Your task to perform on an android device: What's the weather? Image 0: 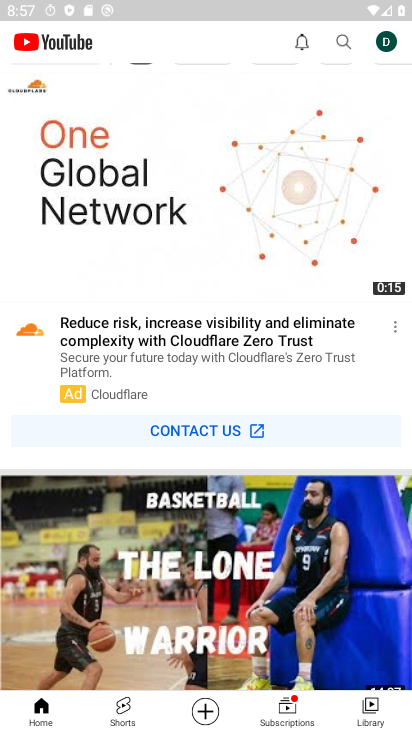
Step 0: press back button
Your task to perform on an android device: What's the weather? Image 1: 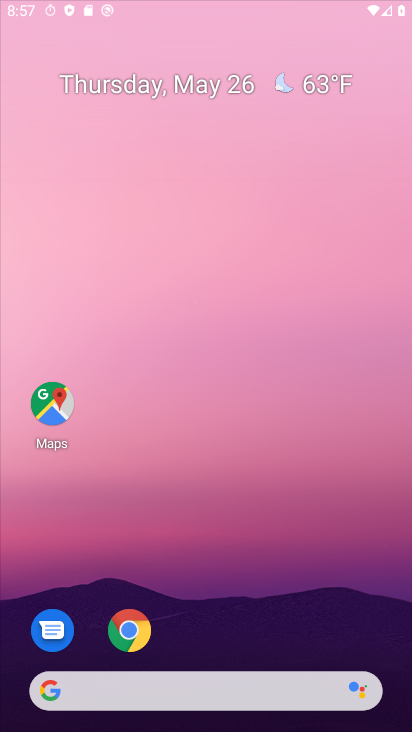
Step 1: press home button
Your task to perform on an android device: What's the weather? Image 2: 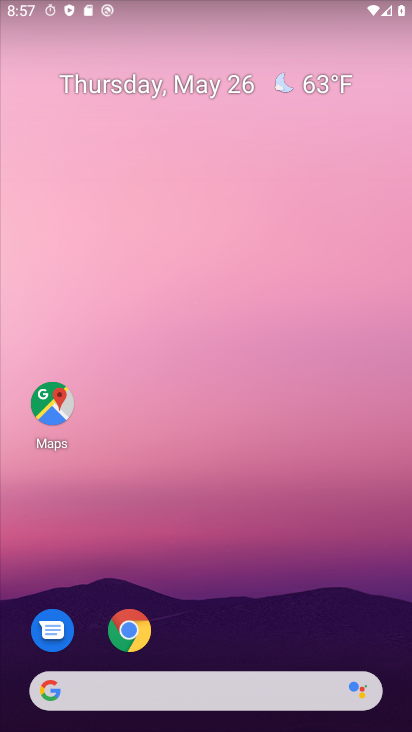
Step 2: drag from (277, 711) to (230, 410)
Your task to perform on an android device: What's the weather? Image 3: 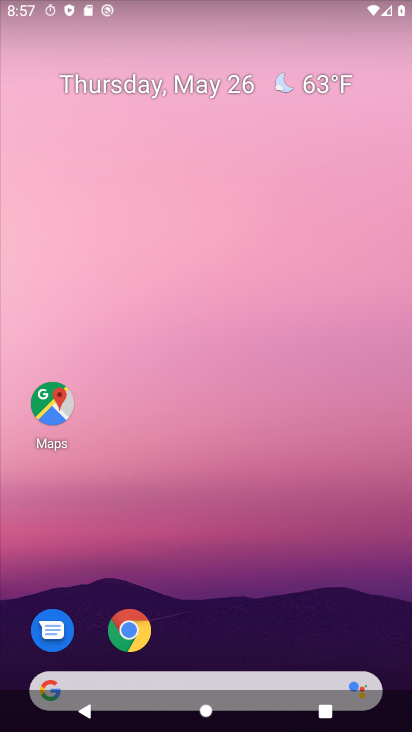
Step 3: drag from (2, 226) to (365, 426)
Your task to perform on an android device: What's the weather? Image 4: 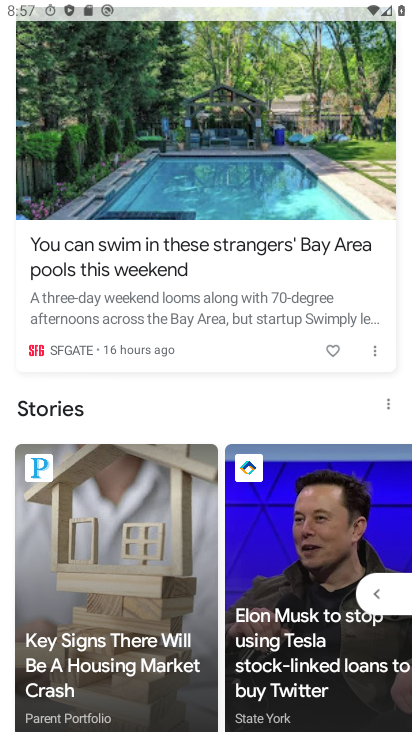
Step 4: drag from (94, 158) to (143, 516)
Your task to perform on an android device: What's the weather? Image 5: 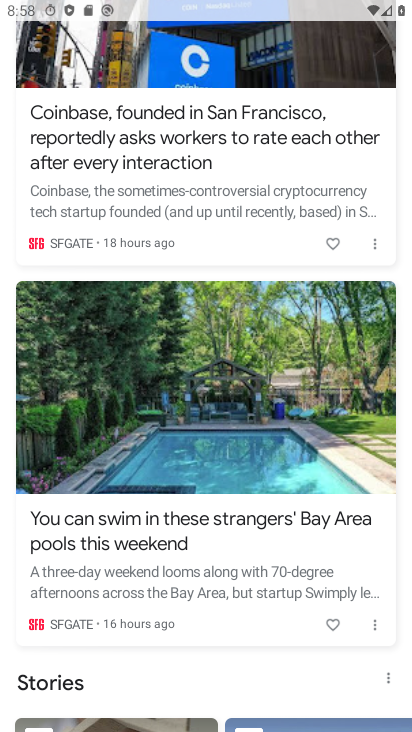
Step 5: drag from (167, 292) to (215, 597)
Your task to perform on an android device: What's the weather? Image 6: 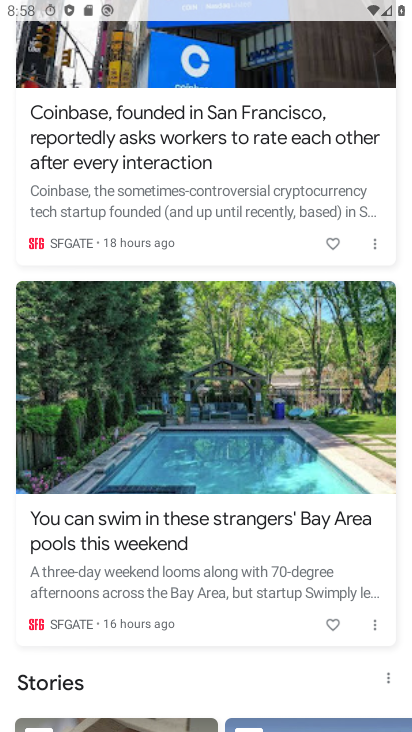
Step 6: click (215, 634)
Your task to perform on an android device: What's the weather? Image 7: 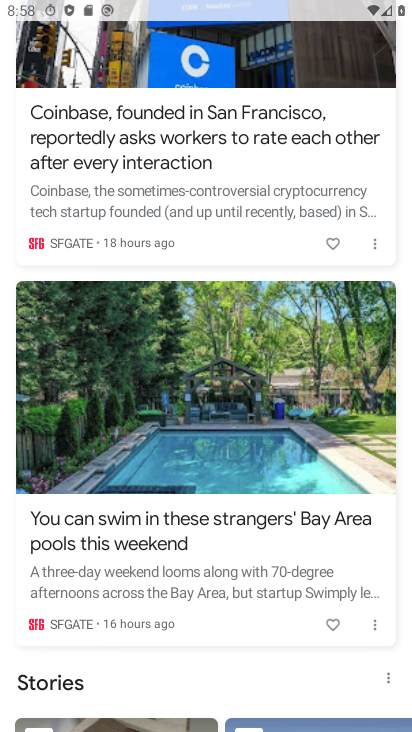
Step 7: drag from (182, 305) to (256, 728)
Your task to perform on an android device: What's the weather? Image 8: 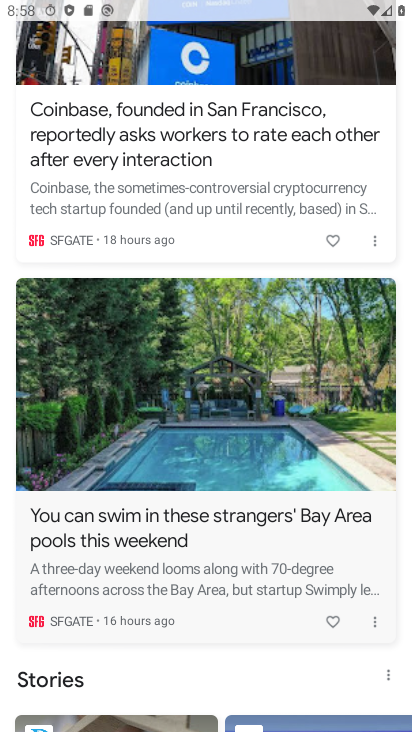
Step 8: drag from (194, 340) to (242, 666)
Your task to perform on an android device: What's the weather? Image 9: 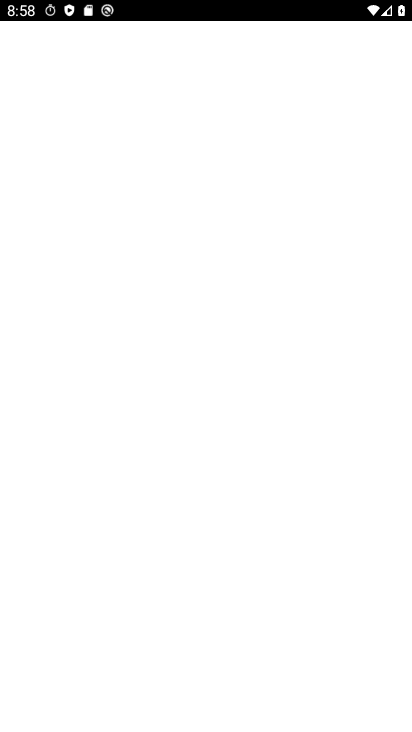
Step 9: drag from (185, 297) to (243, 694)
Your task to perform on an android device: What's the weather? Image 10: 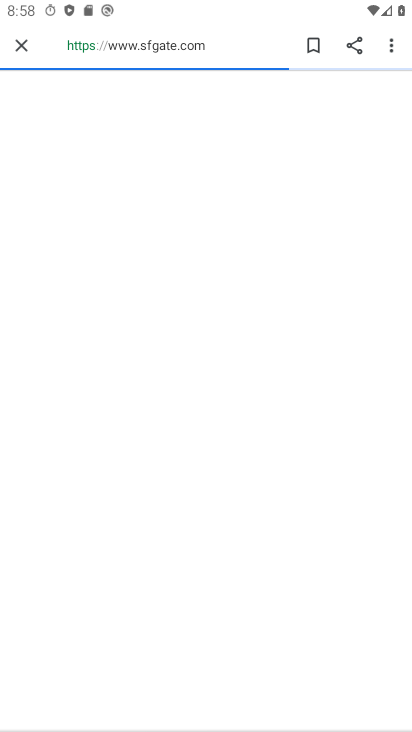
Step 10: drag from (176, 231) to (230, 677)
Your task to perform on an android device: What's the weather? Image 11: 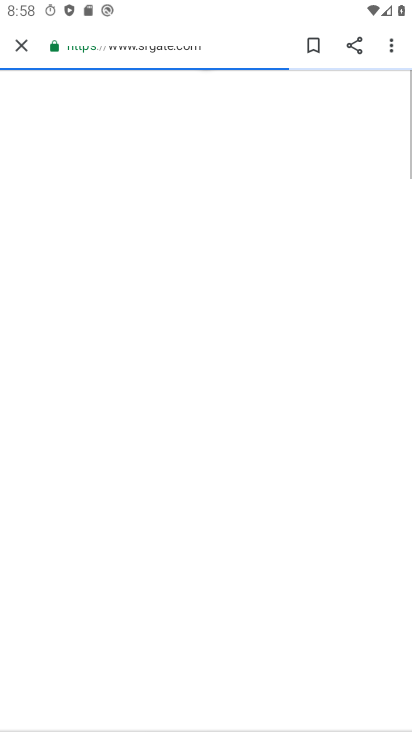
Step 11: drag from (167, 234) to (245, 716)
Your task to perform on an android device: What's the weather? Image 12: 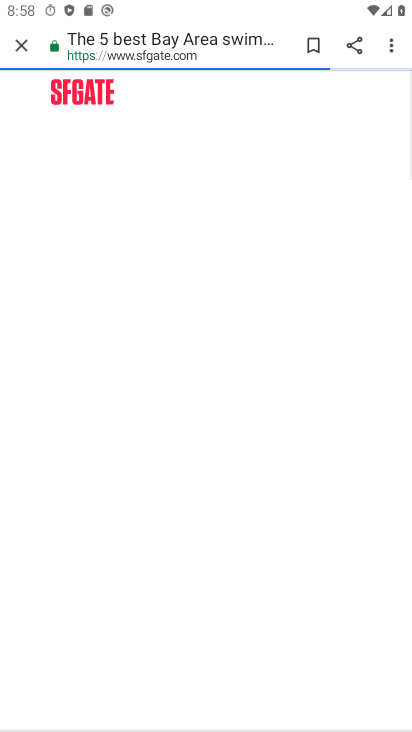
Step 12: drag from (269, 193) to (333, 666)
Your task to perform on an android device: What's the weather? Image 13: 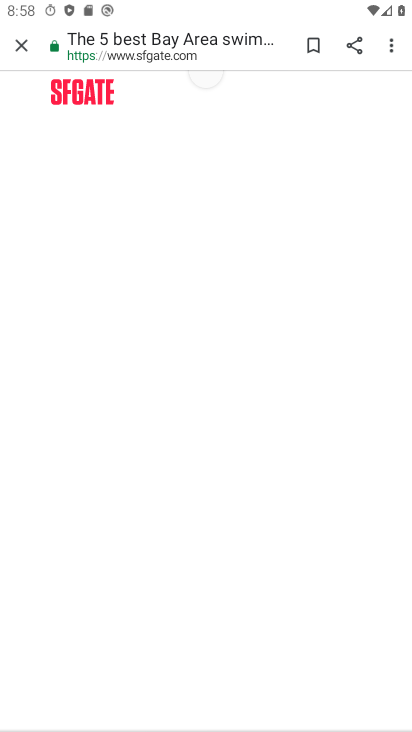
Step 13: drag from (281, 115) to (345, 565)
Your task to perform on an android device: What's the weather? Image 14: 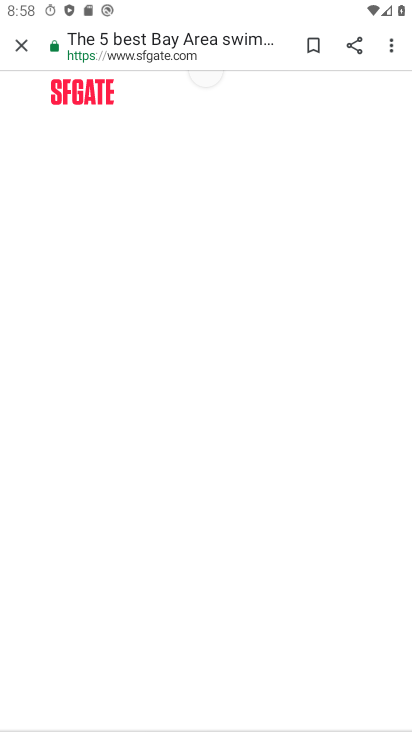
Step 14: drag from (239, 142) to (227, 714)
Your task to perform on an android device: What's the weather? Image 15: 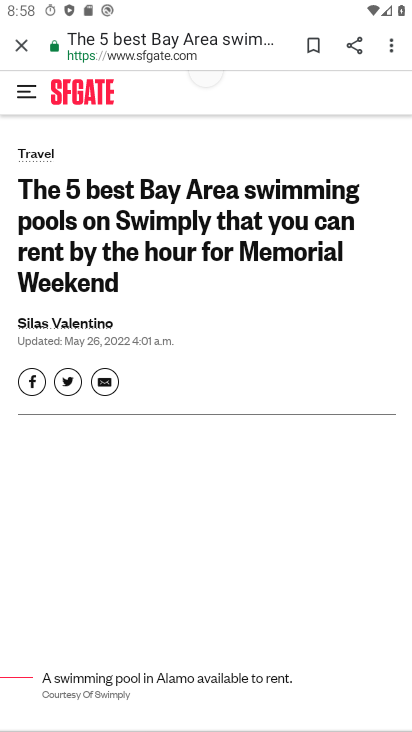
Step 15: drag from (92, 200) to (147, 606)
Your task to perform on an android device: What's the weather? Image 16: 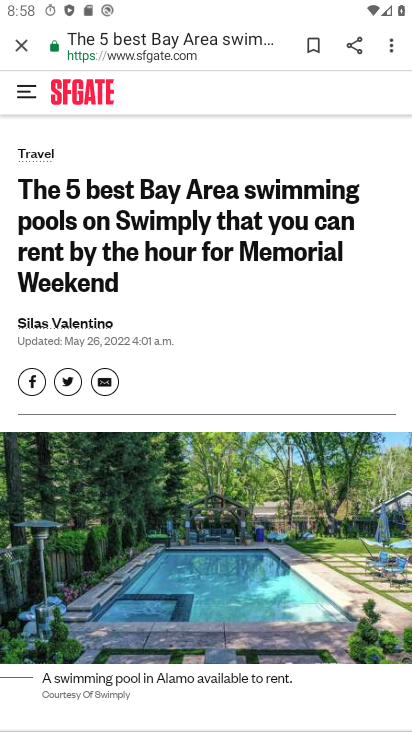
Step 16: drag from (72, 276) to (168, 605)
Your task to perform on an android device: What's the weather? Image 17: 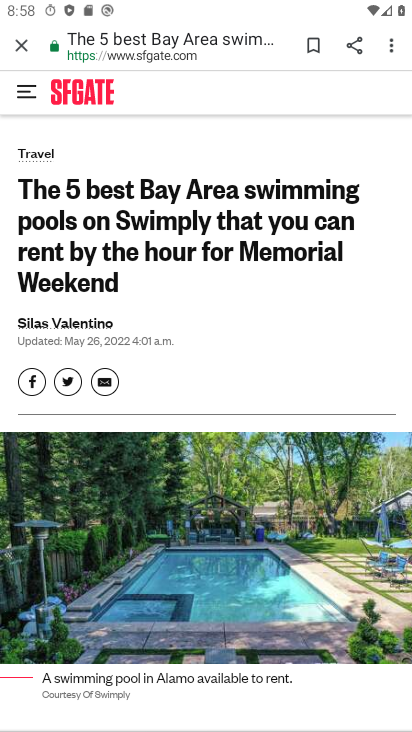
Step 17: drag from (106, 235) to (161, 712)
Your task to perform on an android device: What's the weather? Image 18: 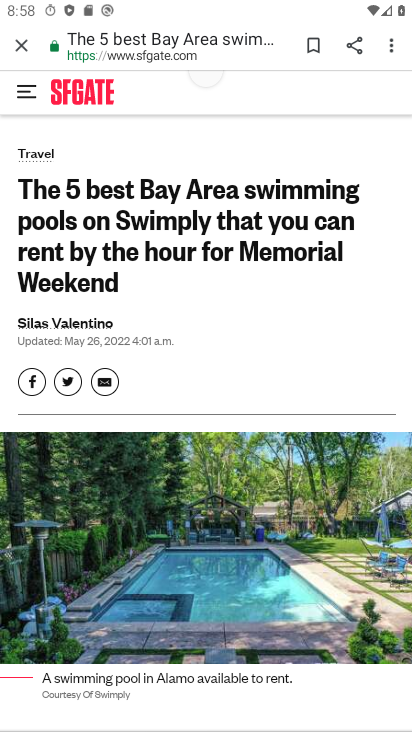
Step 18: drag from (149, 369) to (164, 495)
Your task to perform on an android device: What's the weather? Image 19: 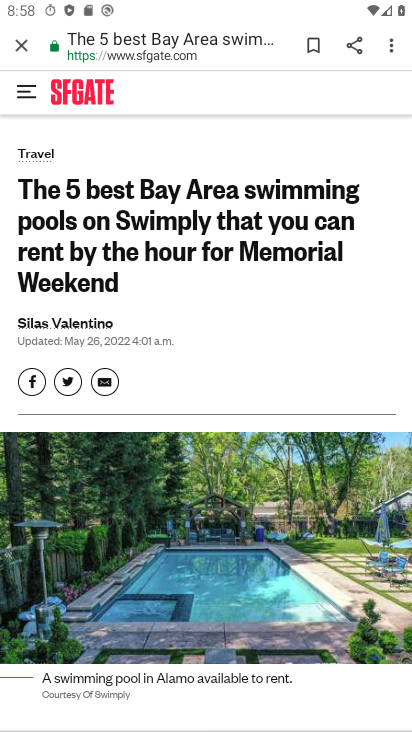
Step 19: drag from (163, 164) to (217, 548)
Your task to perform on an android device: What's the weather? Image 20: 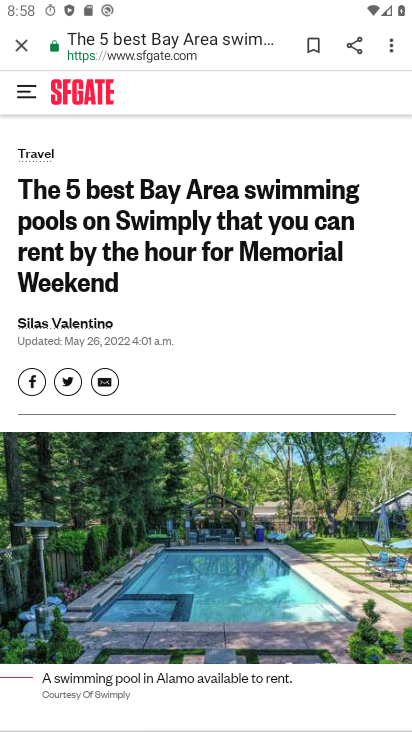
Step 20: click (233, 492)
Your task to perform on an android device: What's the weather? Image 21: 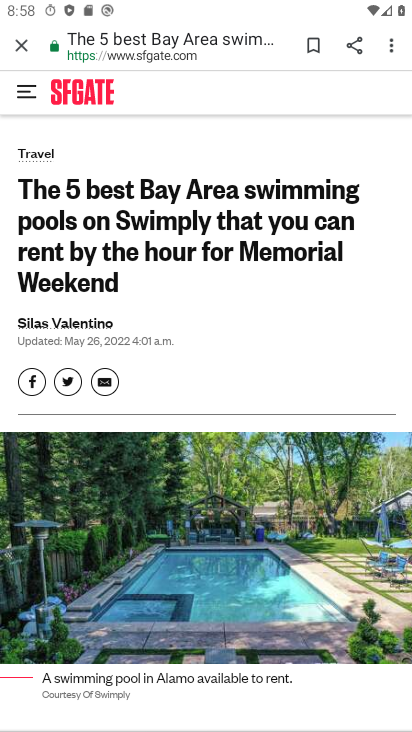
Step 21: drag from (246, 406) to (179, 588)
Your task to perform on an android device: What's the weather? Image 22: 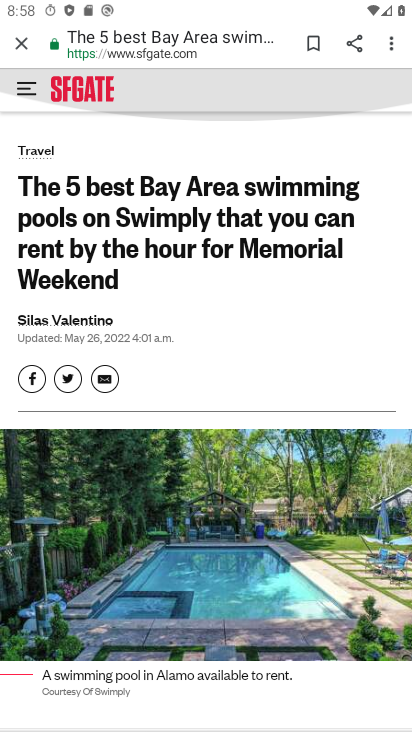
Step 22: drag from (106, 170) to (305, 643)
Your task to perform on an android device: What's the weather? Image 23: 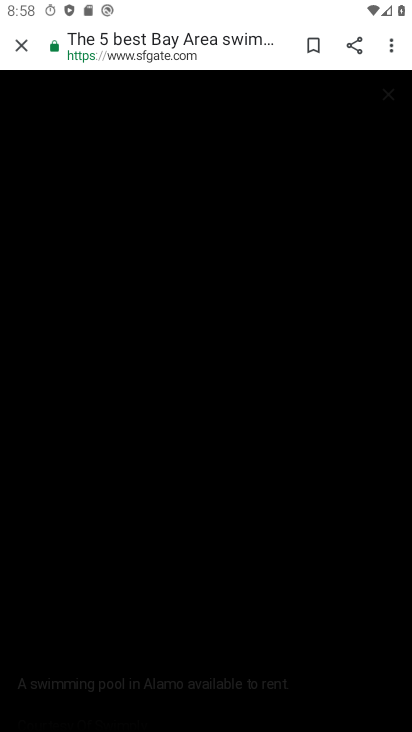
Step 23: drag from (208, 127) to (273, 618)
Your task to perform on an android device: What's the weather? Image 24: 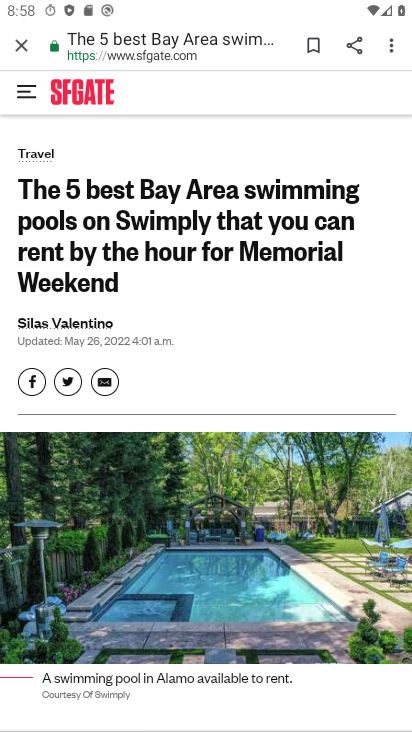
Step 24: drag from (232, 690) to (253, 611)
Your task to perform on an android device: What's the weather? Image 25: 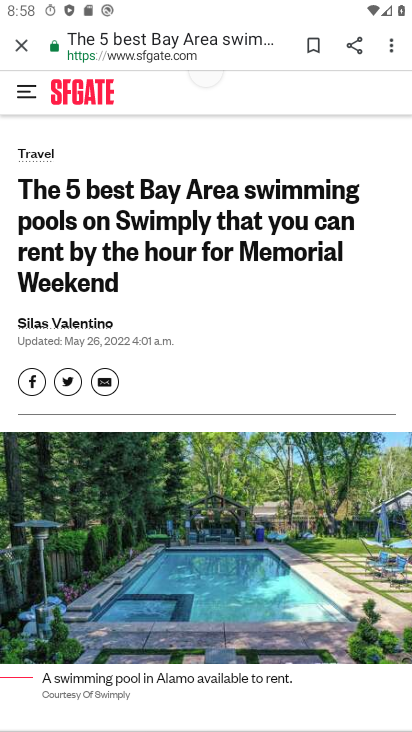
Step 25: drag from (197, 300) to (228, 522)
Your task to perform on an android device: What's the weather? Image 26: 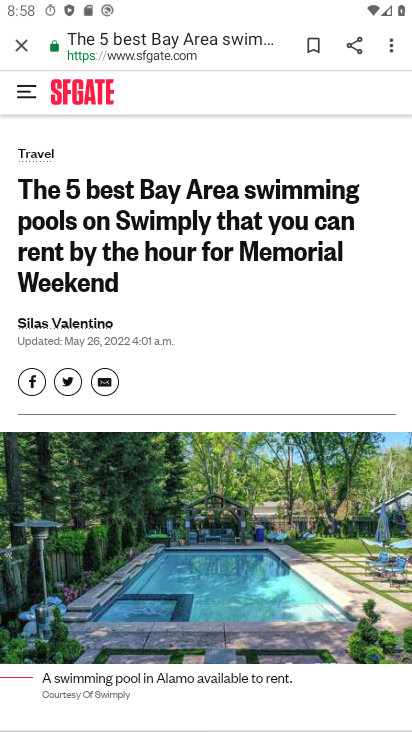
Step 26: press back button
Your task to perform on an android device: What's the weather? Image 27: 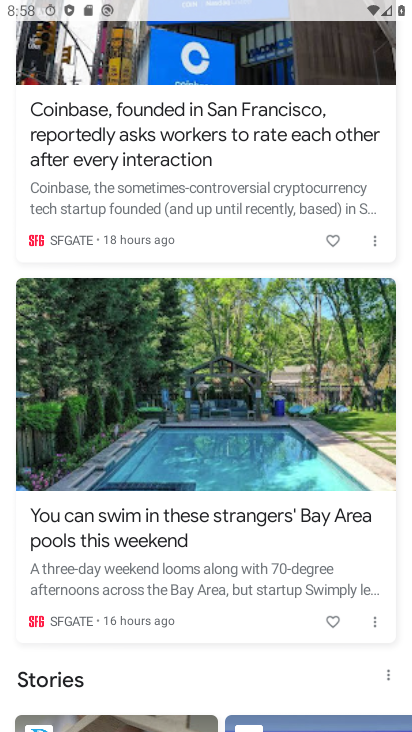
Step 27: drag from (216, 254) to (255, 593)
Your task to perform on an android device: What's the weather? Image 28: 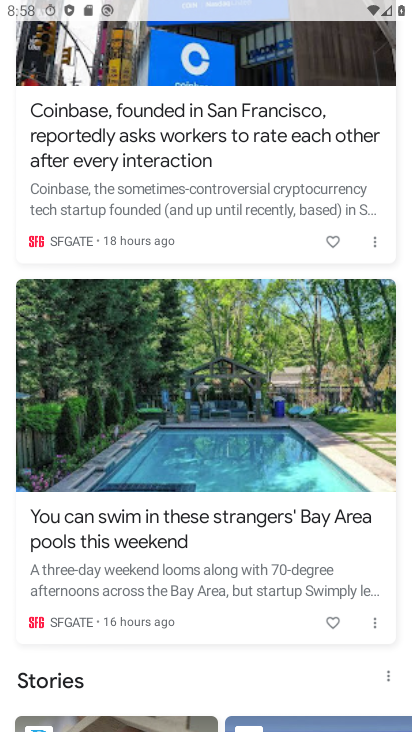
Step 28: press back button
Your task to perform on an android device: What's the weather? Image 29: 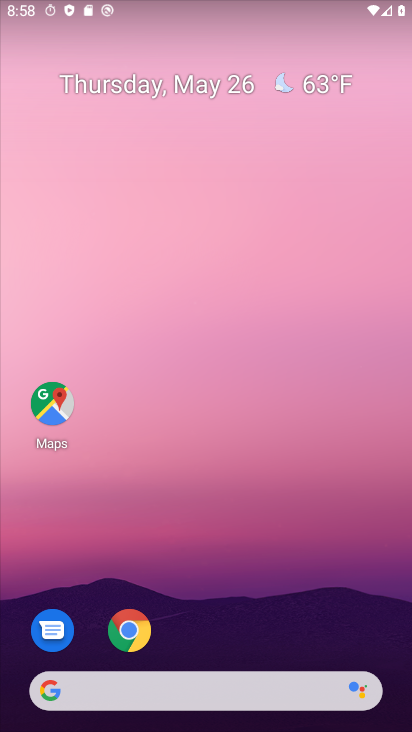
Step 29: drag from (0, 216) to (387, 253)
Your task to perform on an android device: What's the weather? Image 30: 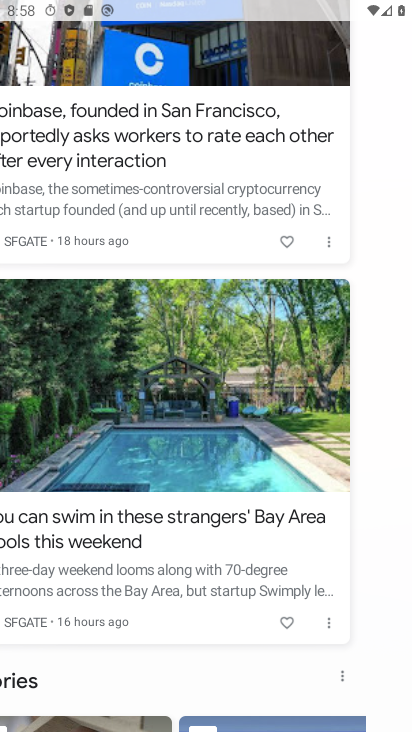
Step 30: drag from (237, 89) to (293, 543)
Your task to perform on an android device: What's the weather? Image 31: 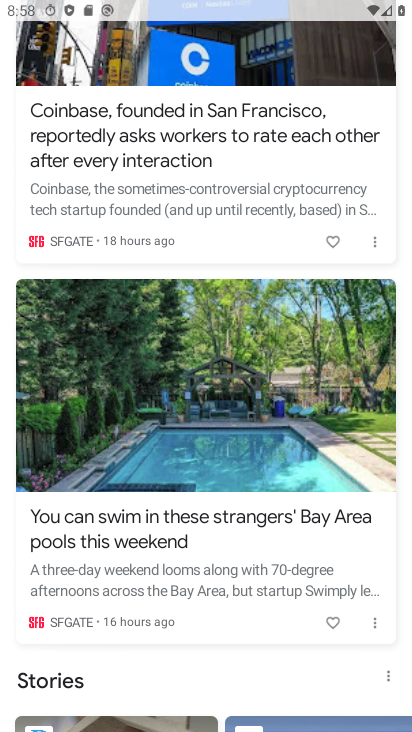
Step 31: drag from (189, 157) to (261, 681)
Your task to perform on an android device: What's the weather? Image 32: 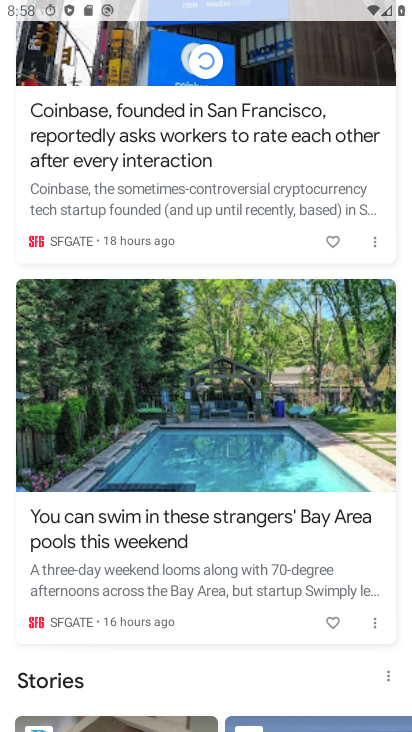
Step 32: drag from (180, 153) to (191, 648)
Your task to perform on an android device: What's the weather? Image 33: 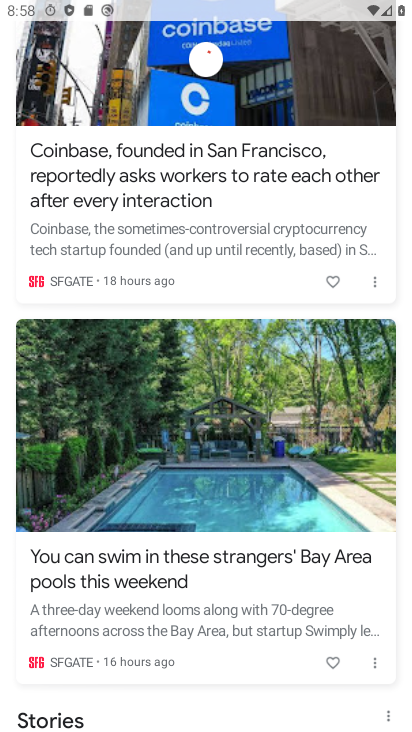
Step 33: drag from (155, 301) to (209, 680)
Your task to perform on an android device: What's the weather? Image 34: 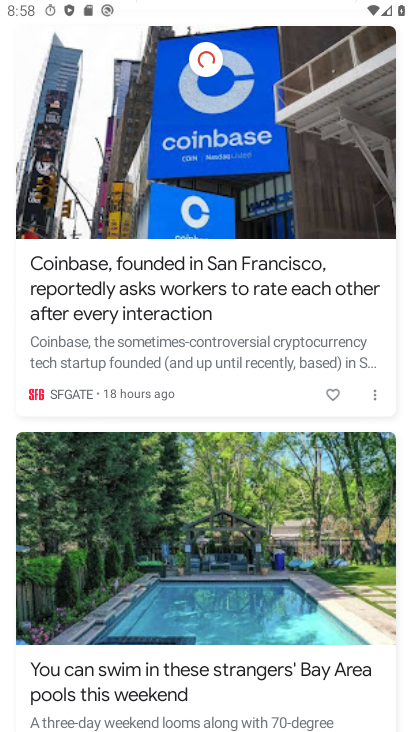
Step 34: drag from (207, 169) to (259, 601)
Your task to perform on an android device: What's the weather? Image 35: 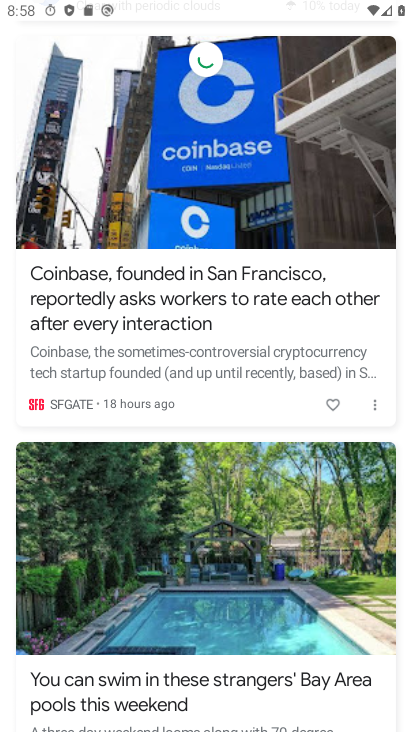
Step 35: drag from (189, 282) to (202, 401)
Your task to perform on an android device: What's the weather? Image 36: 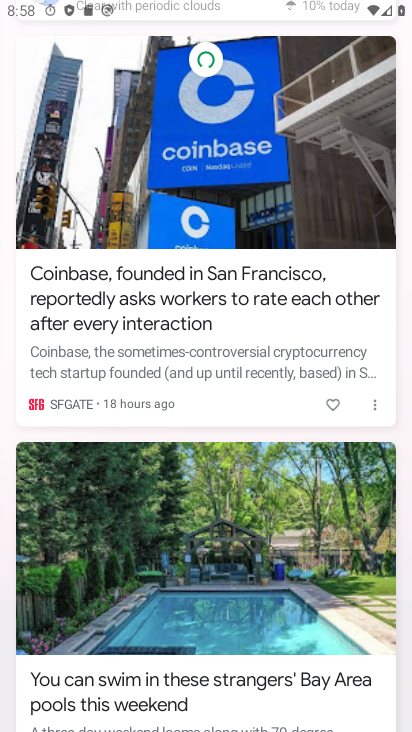
Step 36: drag from (166, 119) to (223, 552)
Your task to perform on an android device: What's the weather? Image 37: 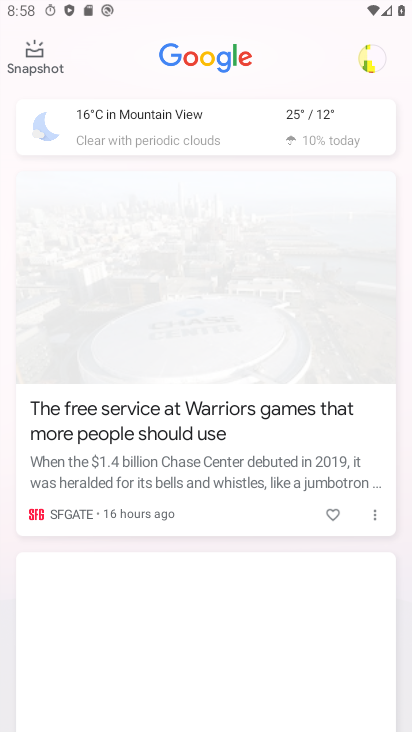
Step 37: drag from (166, 128) to (271, 543)
Your task to perform on an android device: What's the weather? Image 38: 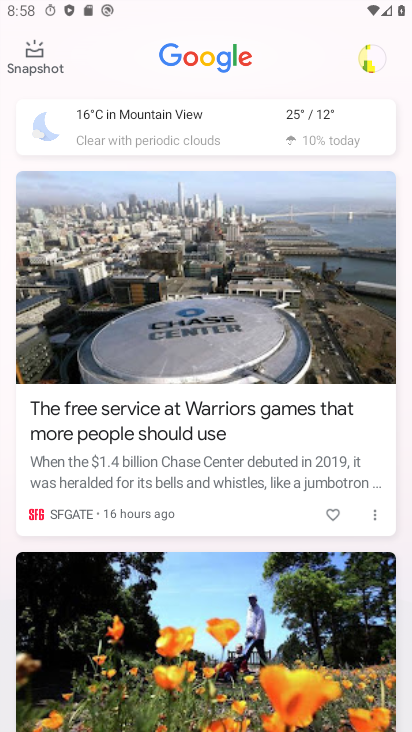
Step 38: click (188, 131)
Your task to perform on an android device: What's the weather? Image 39: 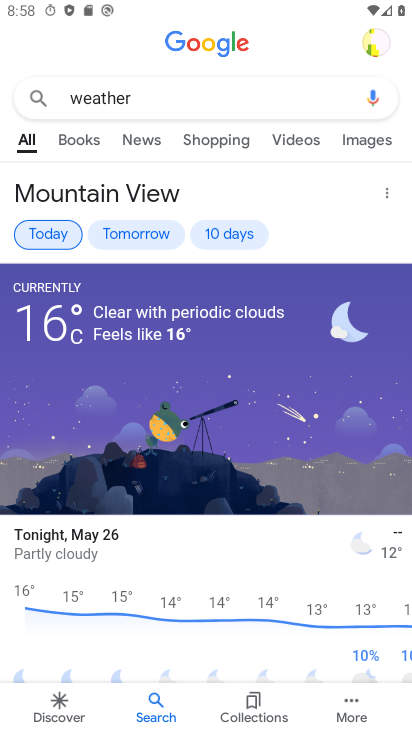
Step 39: task complete